Your task to perform on an android device: check out phone information Image 0: 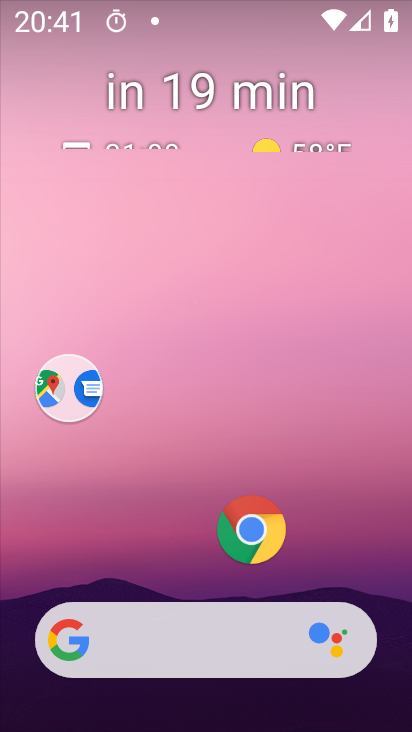
Step 0: drag from (185, 562) to (120, 51)
Your task to perform on an android device: check out phone information Image 1: 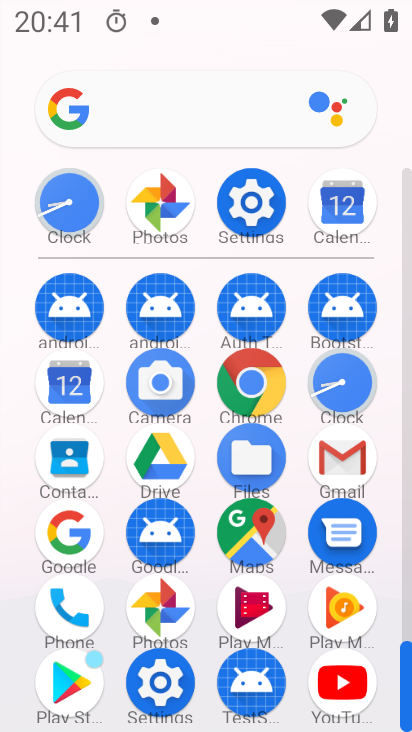
Step 1: click (252, 197)
Your task to perform on an android device: check out phone information Image 2: 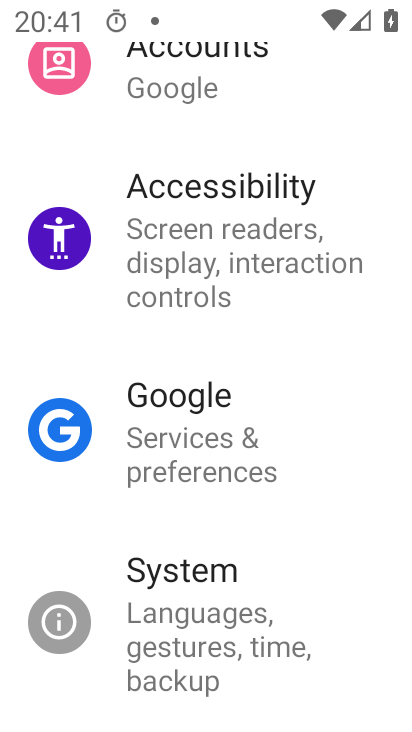
Step 2: drag from (259, 657) to (226, 182)
Your task to perform on an android device: check out phone information Image 3: 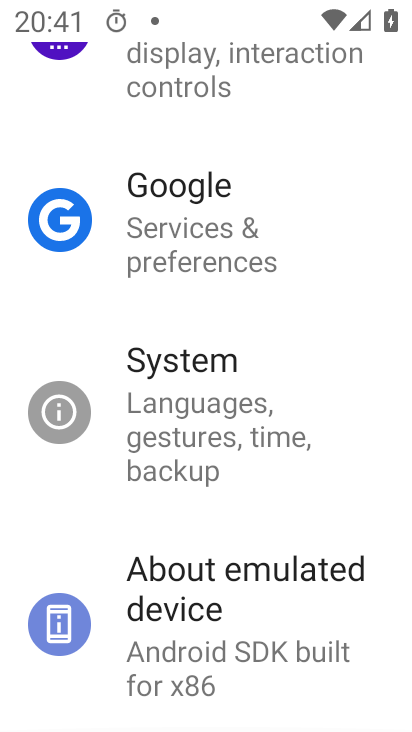
Step 3: click (235, 626)
Your task to perform on an android device: check out phone information Image 4: 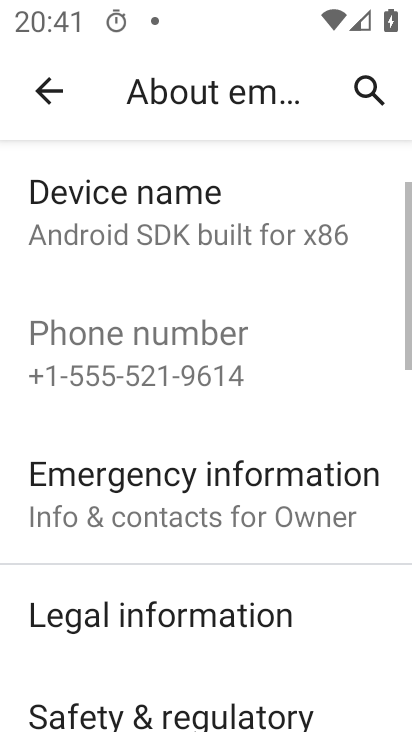
Step 4: task complete